Your task to perform on an android device: Go to Amazon Image 0: 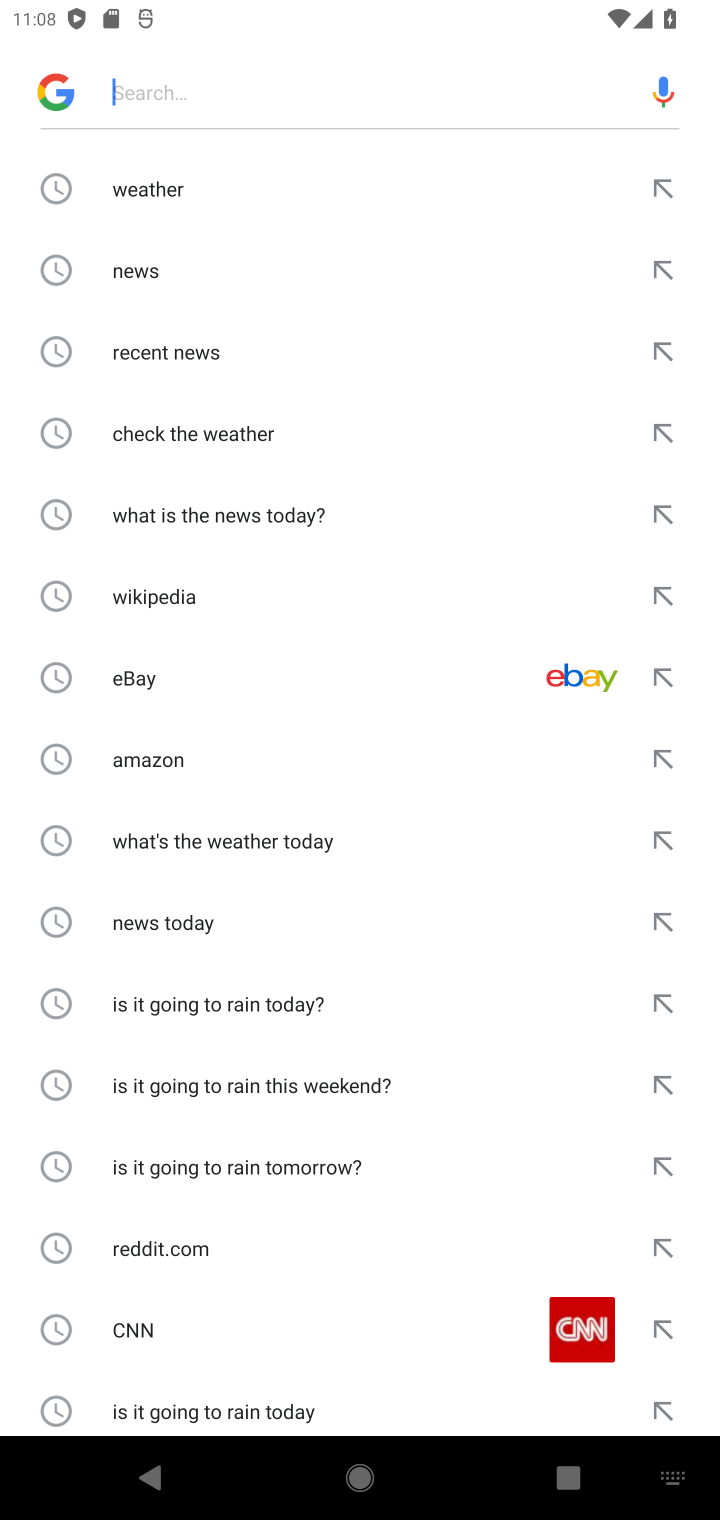
Step 0: type "Amazon"
Your task to perform on an android device: Go to Amazon Image 1: 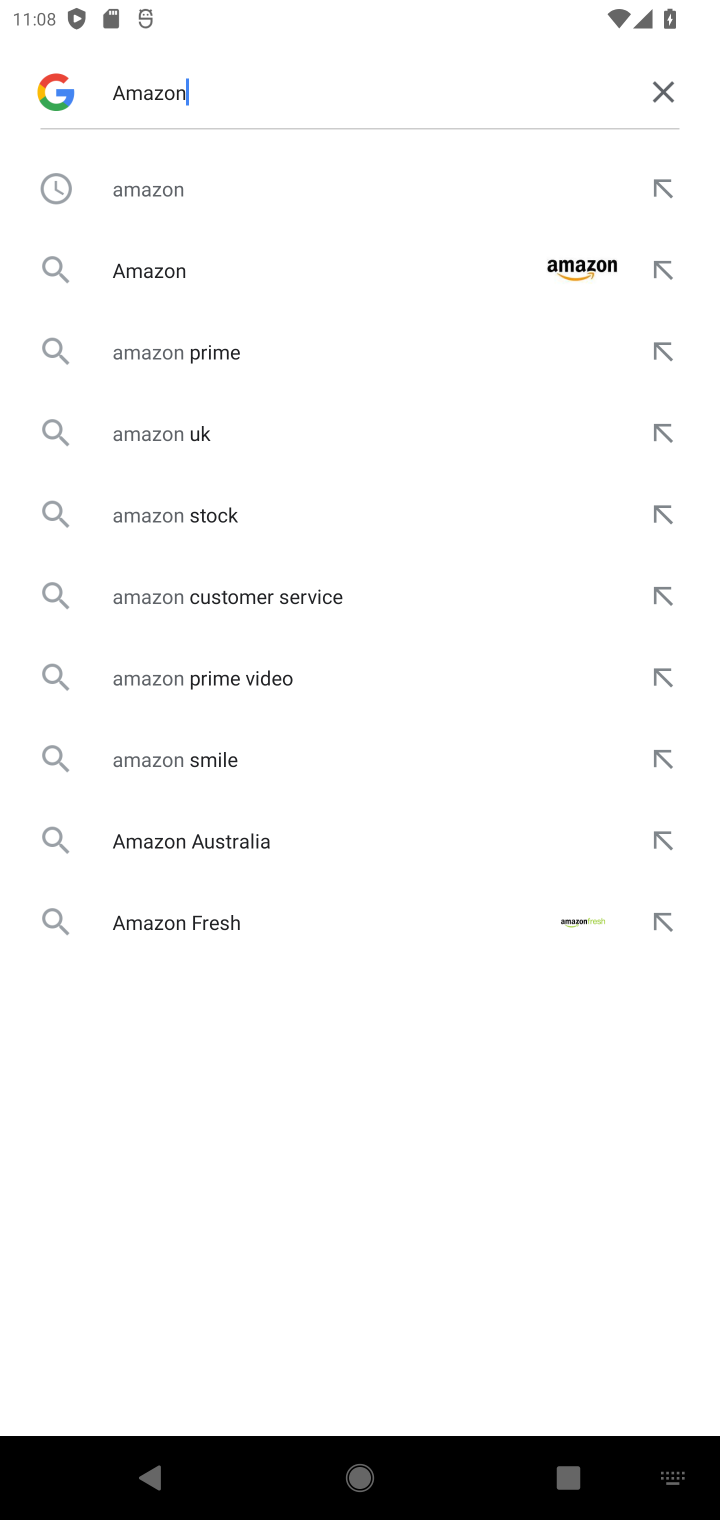
Step 1: click (255, 269)
Your task to perform on an android device: Go to Amazon Image 2: 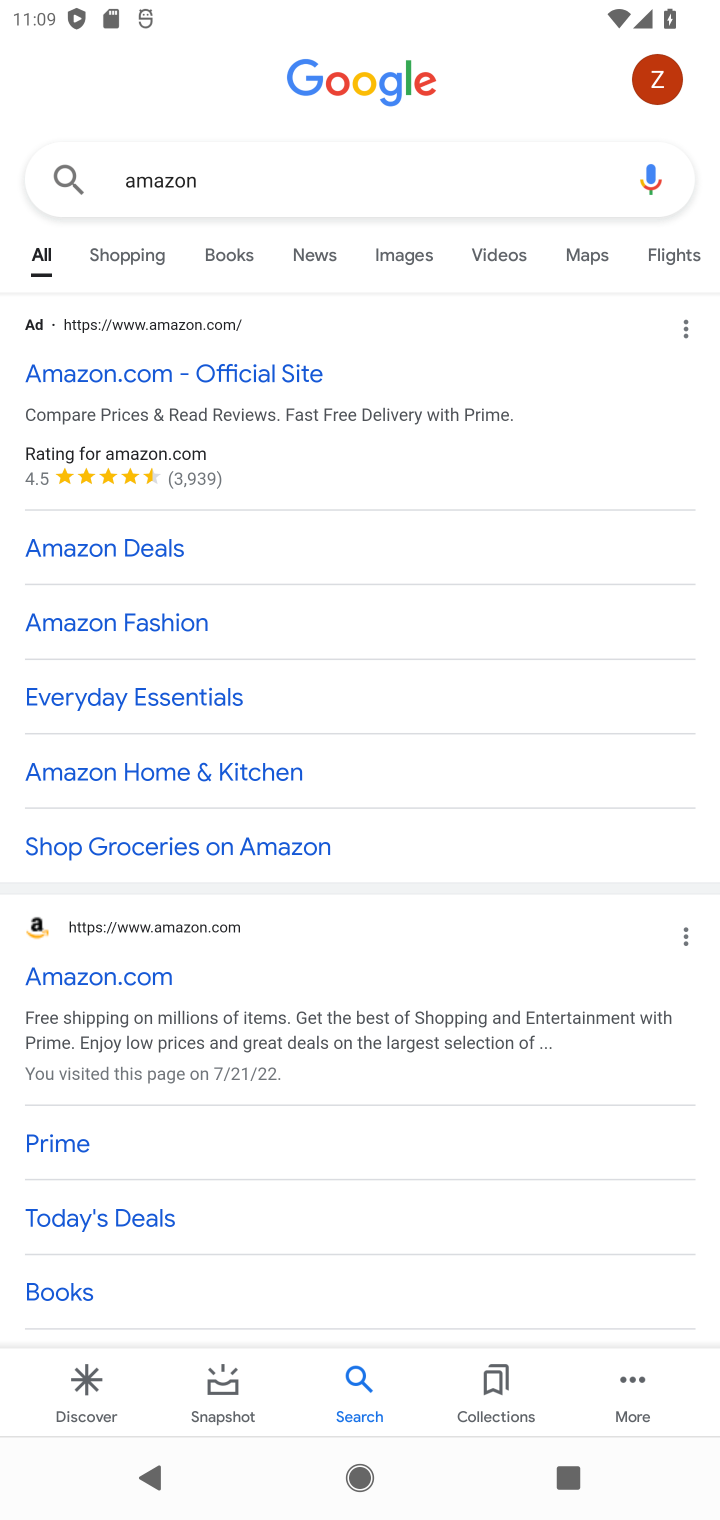
Step 2: task complete